Your task to perform on an android device: Open ESPN.com Image 0: 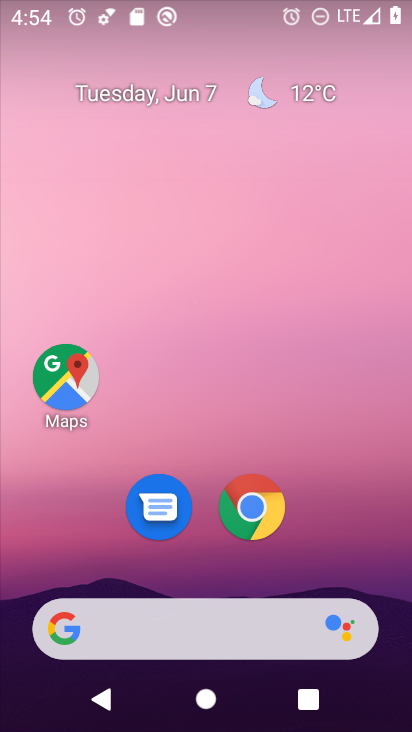
Step 0: drag from (341, 538) to (222, 23)
Your task to perform on an android device: Open ESPN.com Image 1: 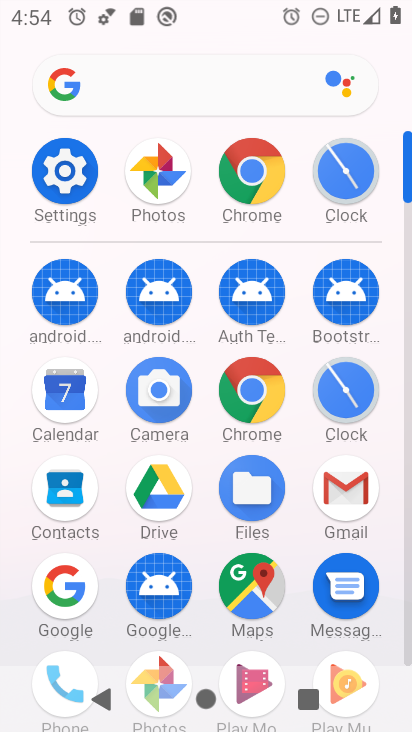
Step 1: drag from (15, 585) to (11, 214)
Your task to perform on an android device: Open ESPN.com Image 2: 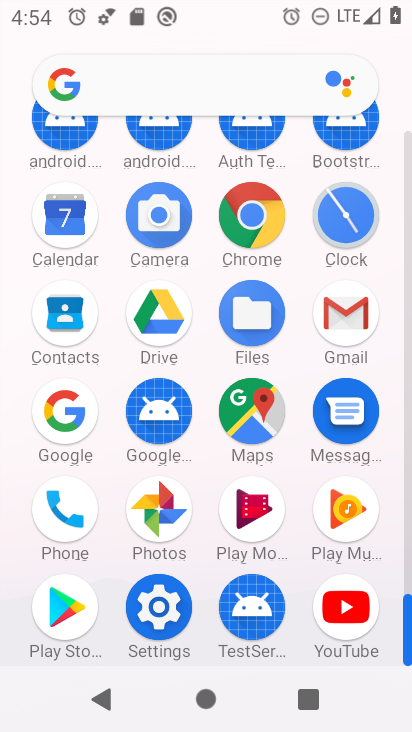
Step 2: click (247, 210)
Your task to perform on an android device: Open ESPN.com Image 3: 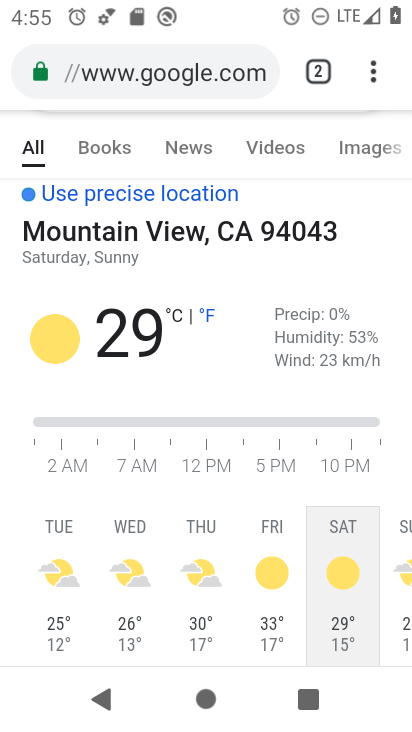
Step 3: click (132, 77)
Your task to perform on an android device: Open ESPN.com Image 4: 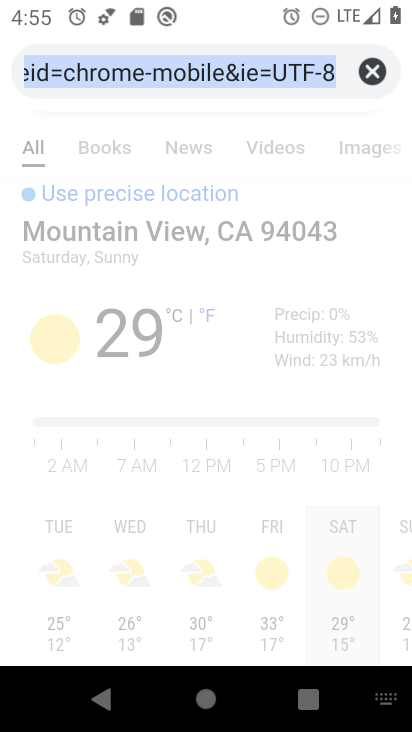
Step 4: click (363, 70)
Your task to perform on an android device: Open ESPN.com Image 5: 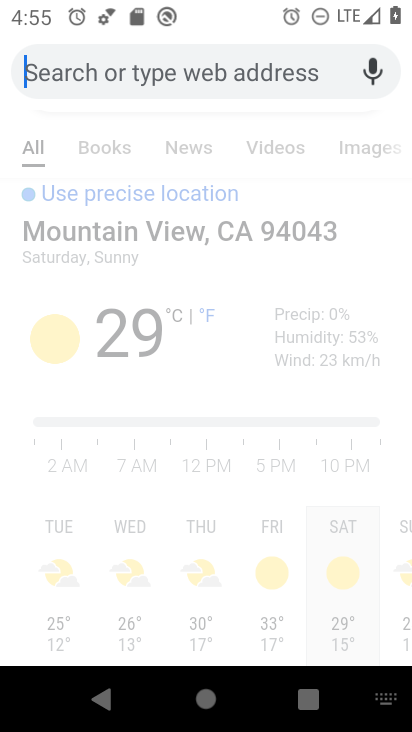
Step 5: type " ESPN.com"
Your task to perform on an android device: Open ESPN.com Image 6: 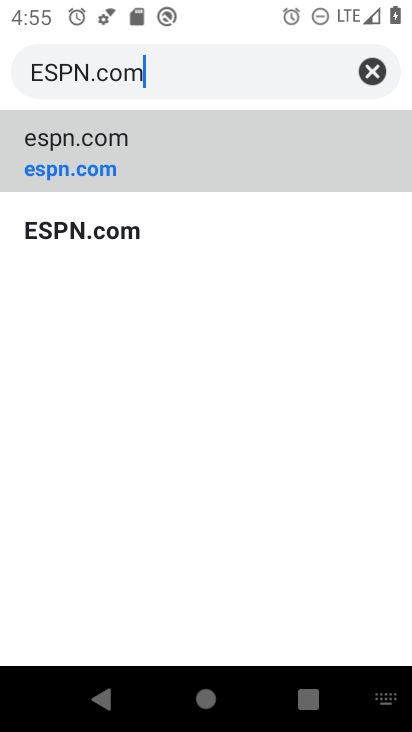
Step 6: type ""
Your task to perform on an android device: Open ESPN.com Image 7: 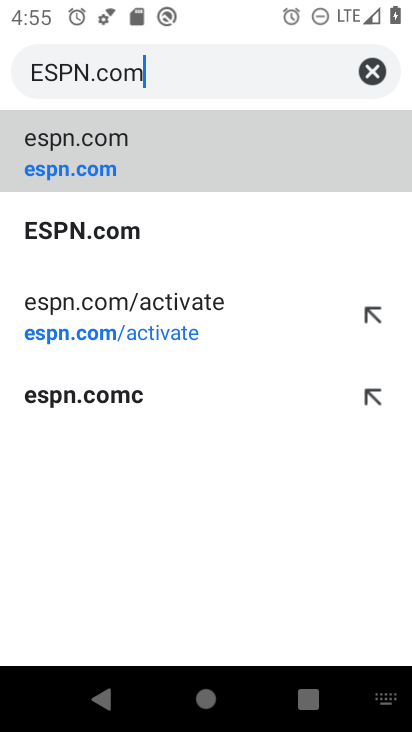
Step 7: click (128, 147)
Your task to perform on an android device: Open ESPN.com Image 8: 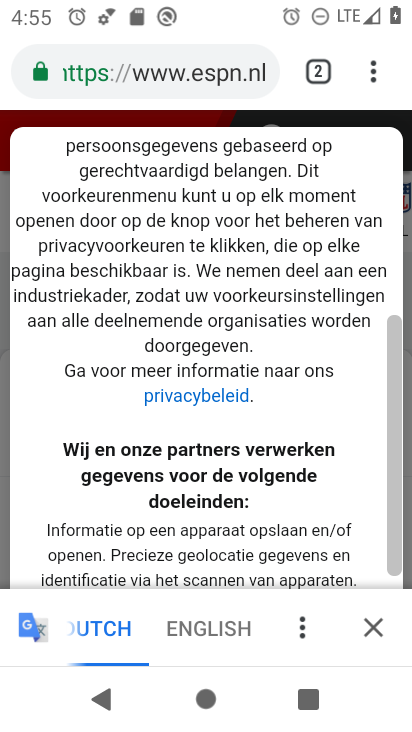
Step 8: drag from (324, 511) to (328, 174)
Your task to perform on an android device: Open ESPN.com Image 9: 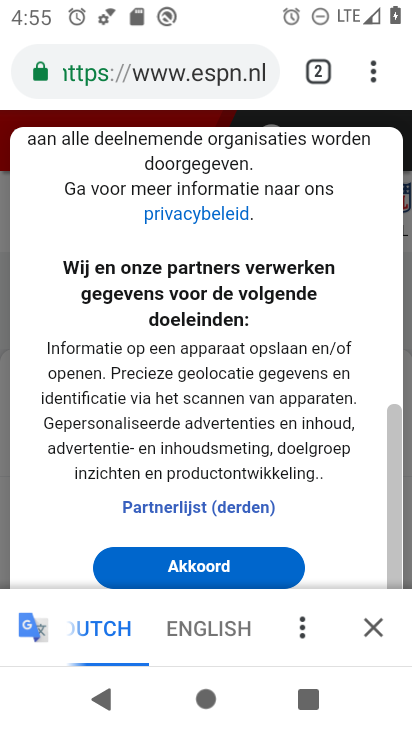
Step 9: click (243, 568)
Your task to perform on an android device: Open ESPN.com Image 10: 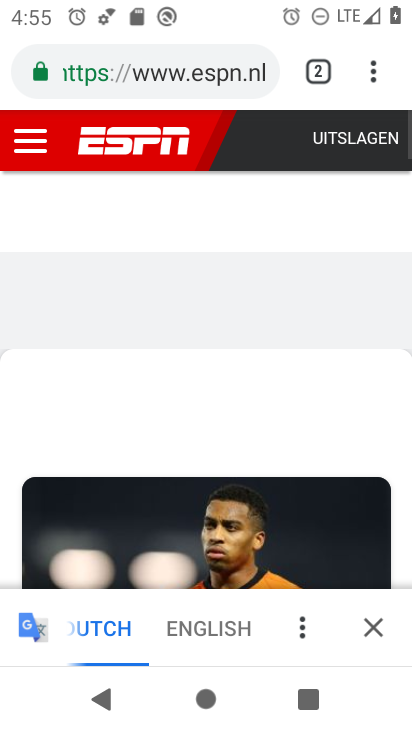
Step 10: task complete